Your task to perform on an android device: toggle notifications settings in the gmail app Image 0: 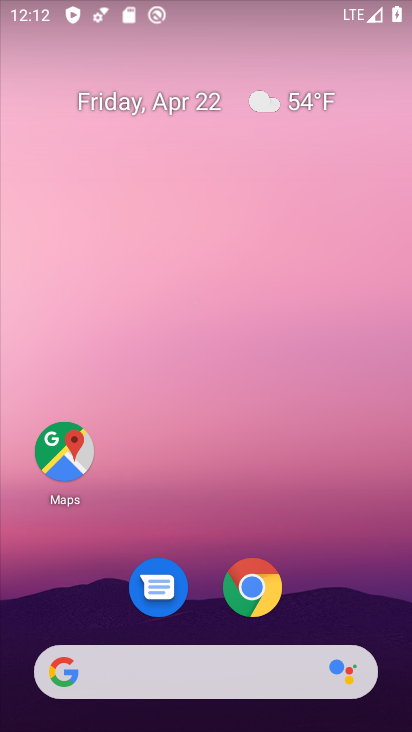
Step 0: drag from (195, 607) to (258, 154)
Your task to perform on an android device: toggle notifications settings in the gmail app Image 1: 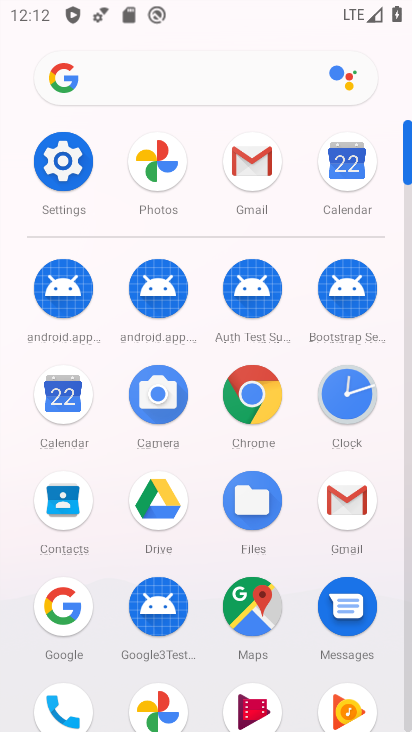
Step 1: click (254, 175)
Your task to perform on an android device: toggle notifications settings in the gmail app Image 2: 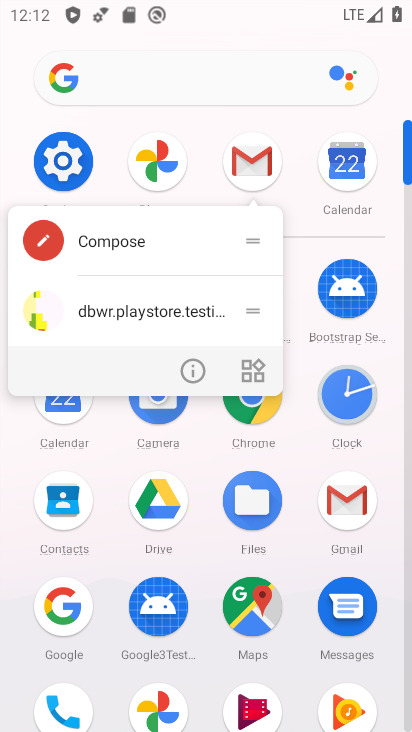
Step 2: click (192, 371)
Your task to perform on an android device: toggle notifications settings in the gmail app Image 3: 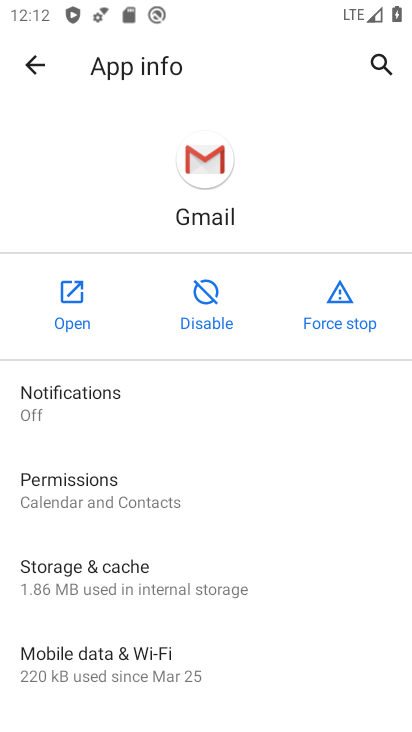
Step 3: click (182, 416)
Your task to perform on an android device: toggle notifications settings in the gmail app Image 4: 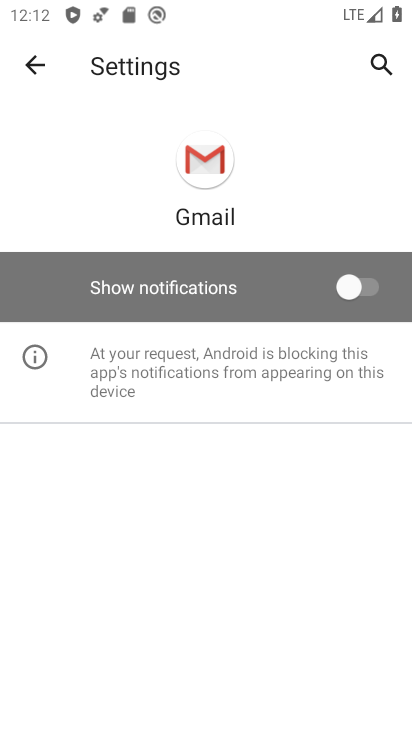
Step 4: click (353, 285)
Your task to perform on an android device: toggle notifications settings in the gmail app Image 5: 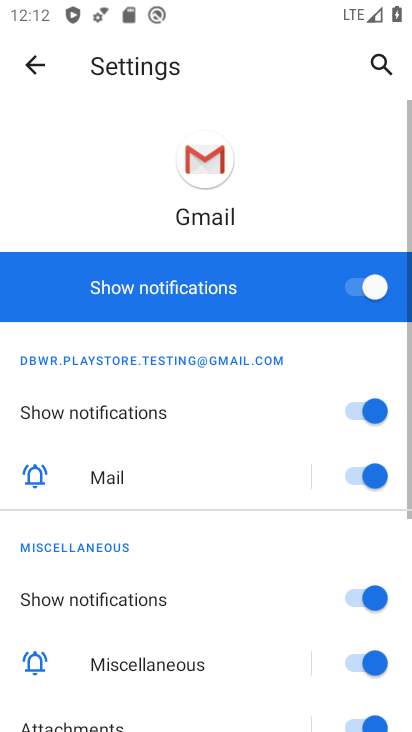
Step 5: task complete